Your task to perform on an android device: Go to notification settings Image 0: 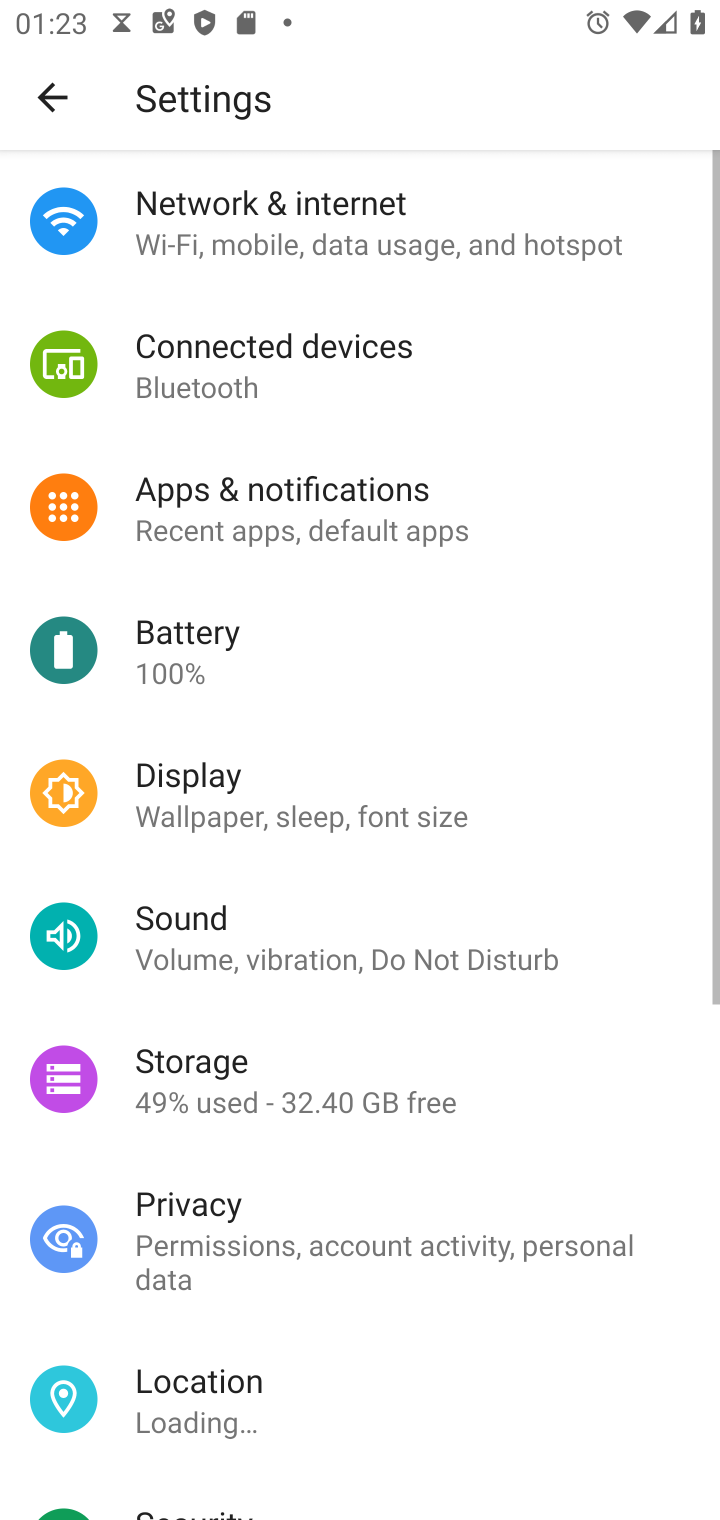
Step 0: click (634, 1053)
Your task to perform on an android device: Go to notification settings Image 1: 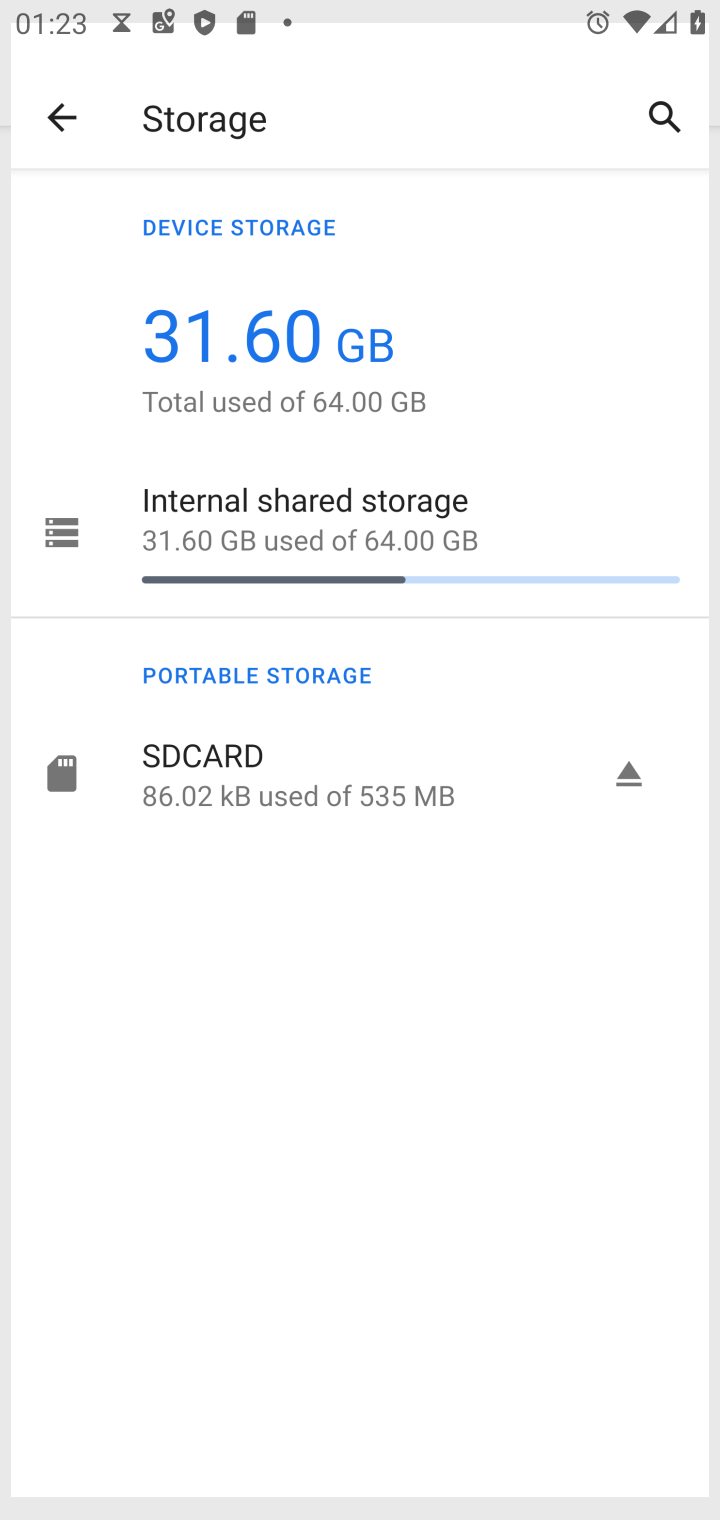
Step 1: press home button
Your task to perform on an android device: Go to notification settings Image 2: 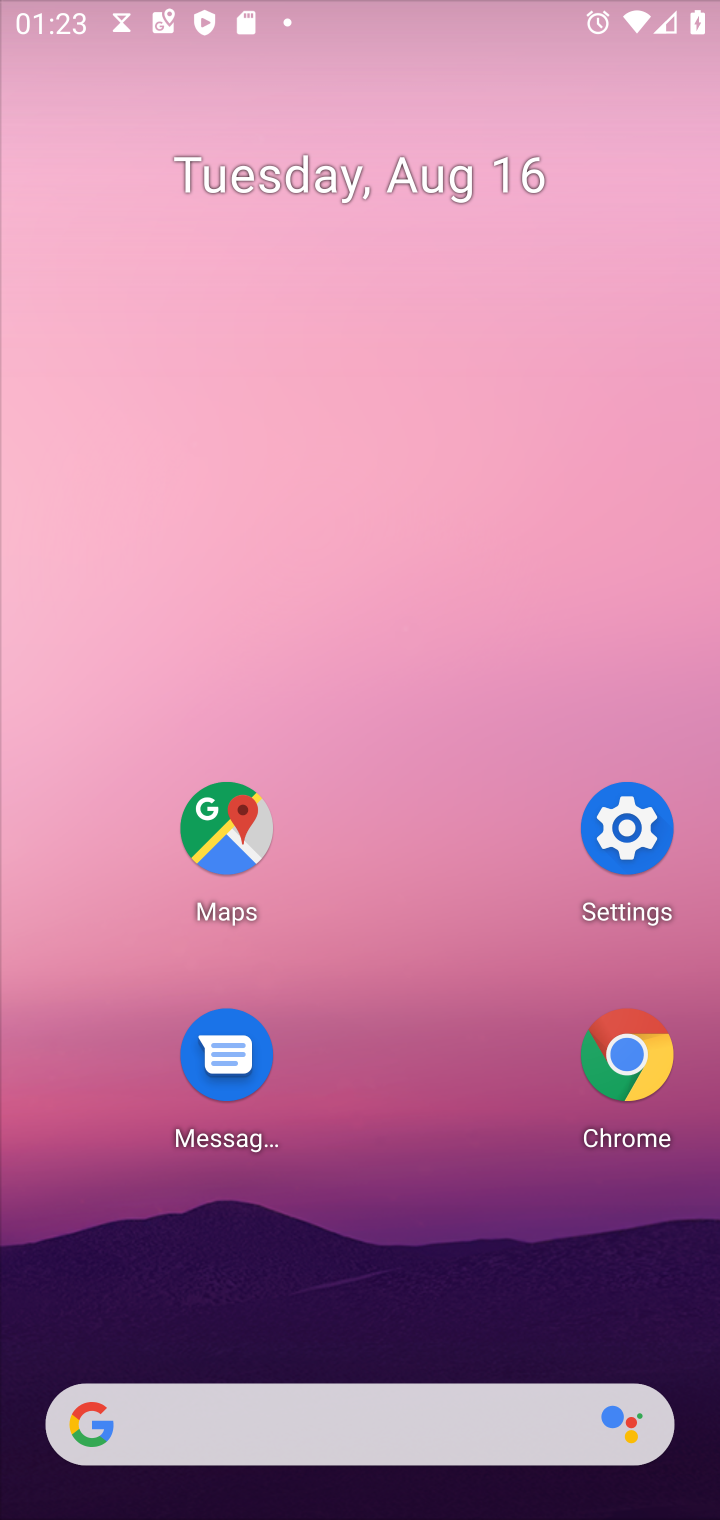
Step 2: press home button
Your task to perform on an android device: Go to notification settings Image 3: 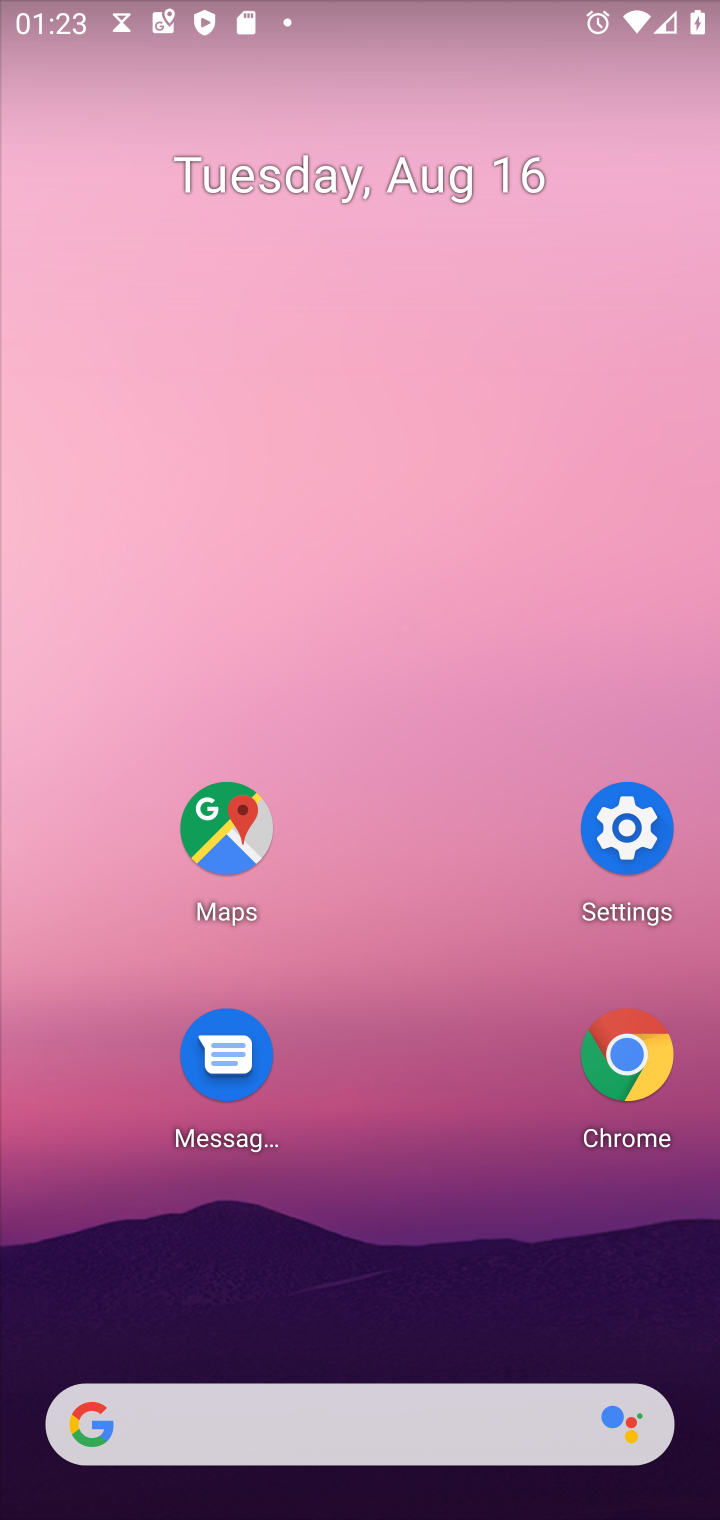
Step 3: click (635, 1062)
Your task to perform on an android device: Go to notification settings Image 4: 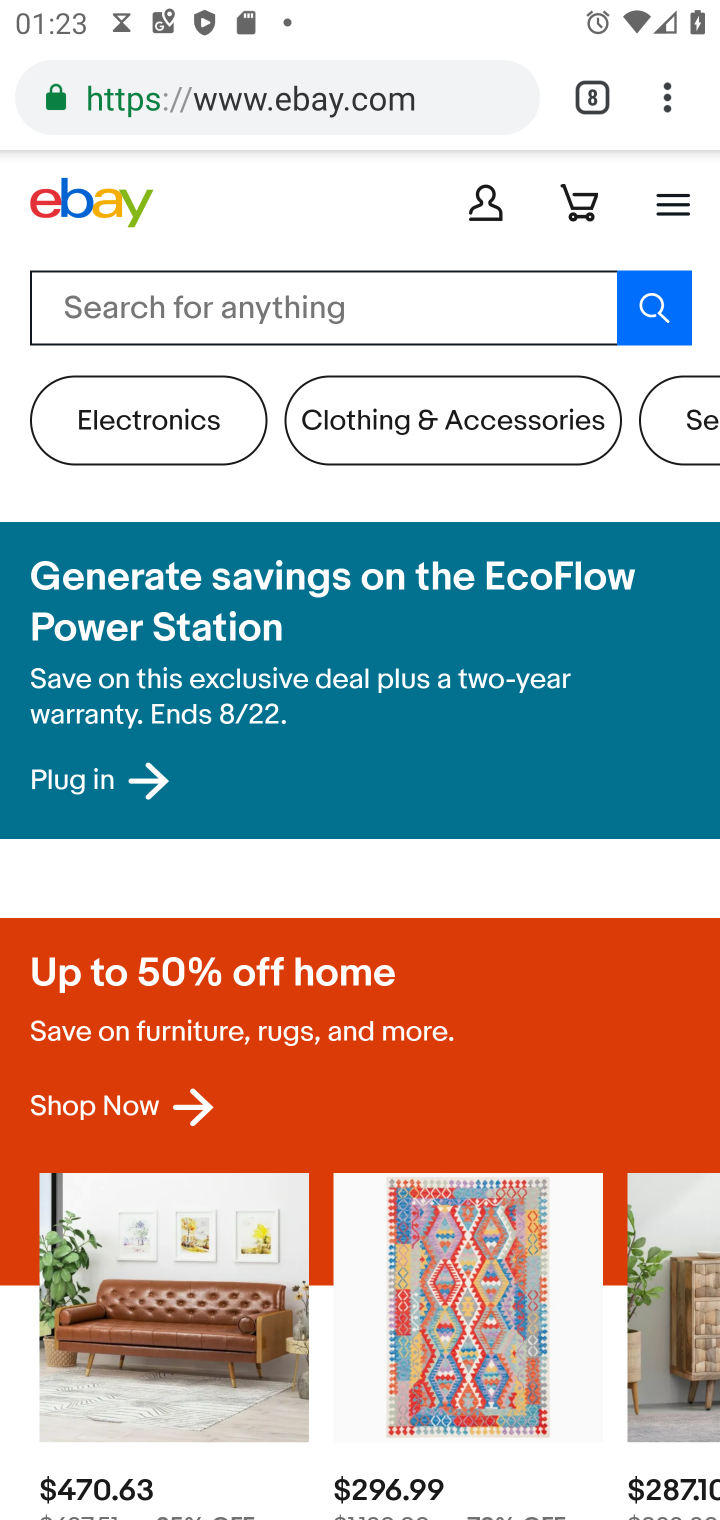
Step 4: press home button
Your task to perform on an android device: Go to notification settings Image 5: 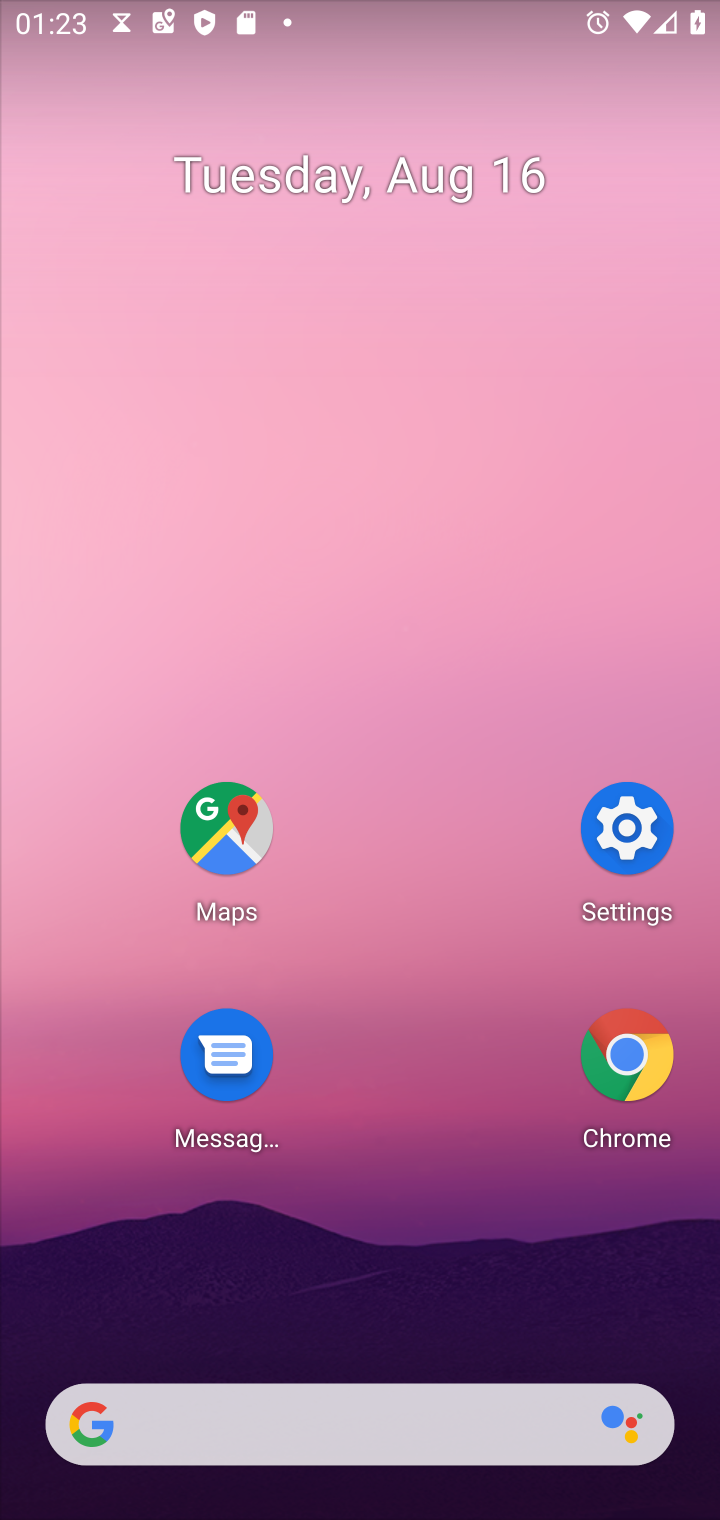
Step 5: click (646, 812)
Your task to perform on an android device: Go to notification settings Image 6: 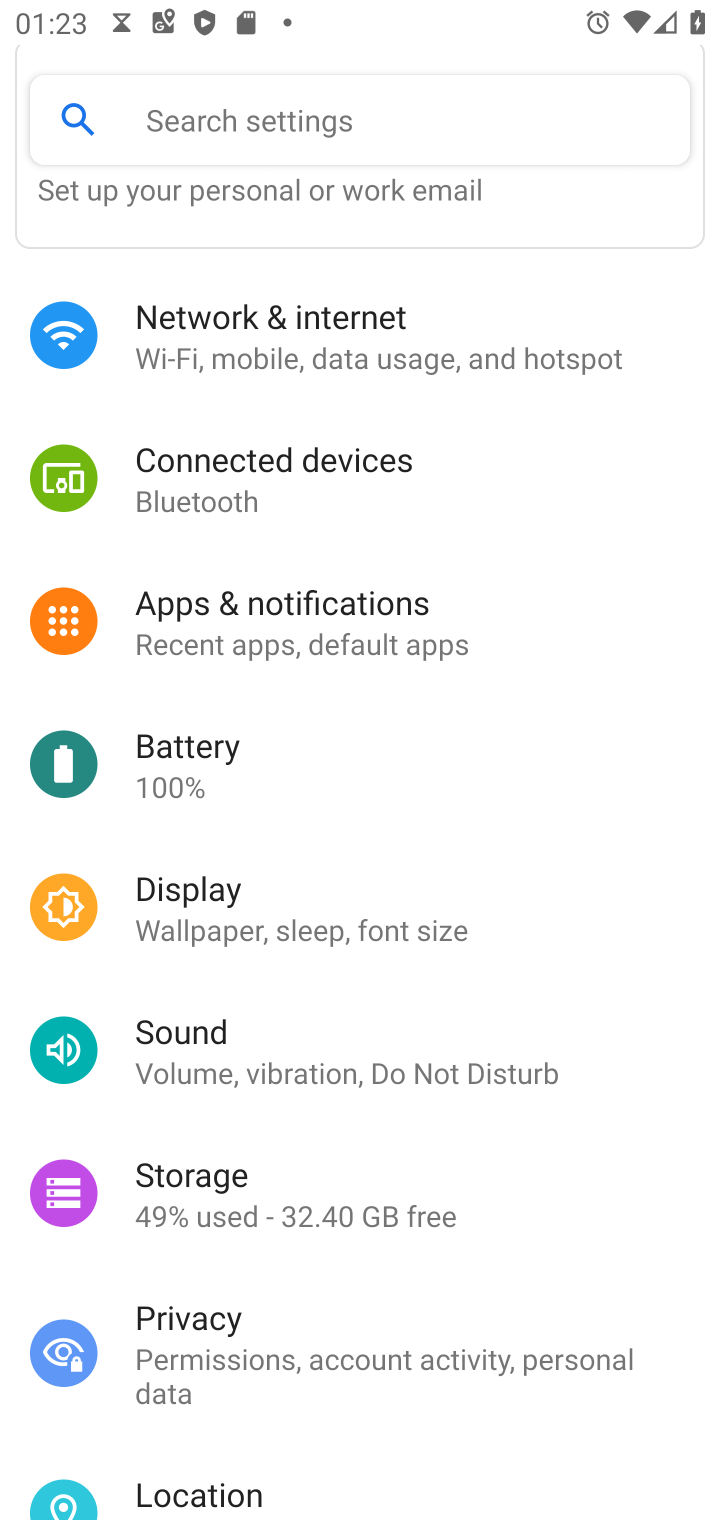
Step 6: click (323, 604)
Your task to perform on an android device: Go to notification settings Image 7: 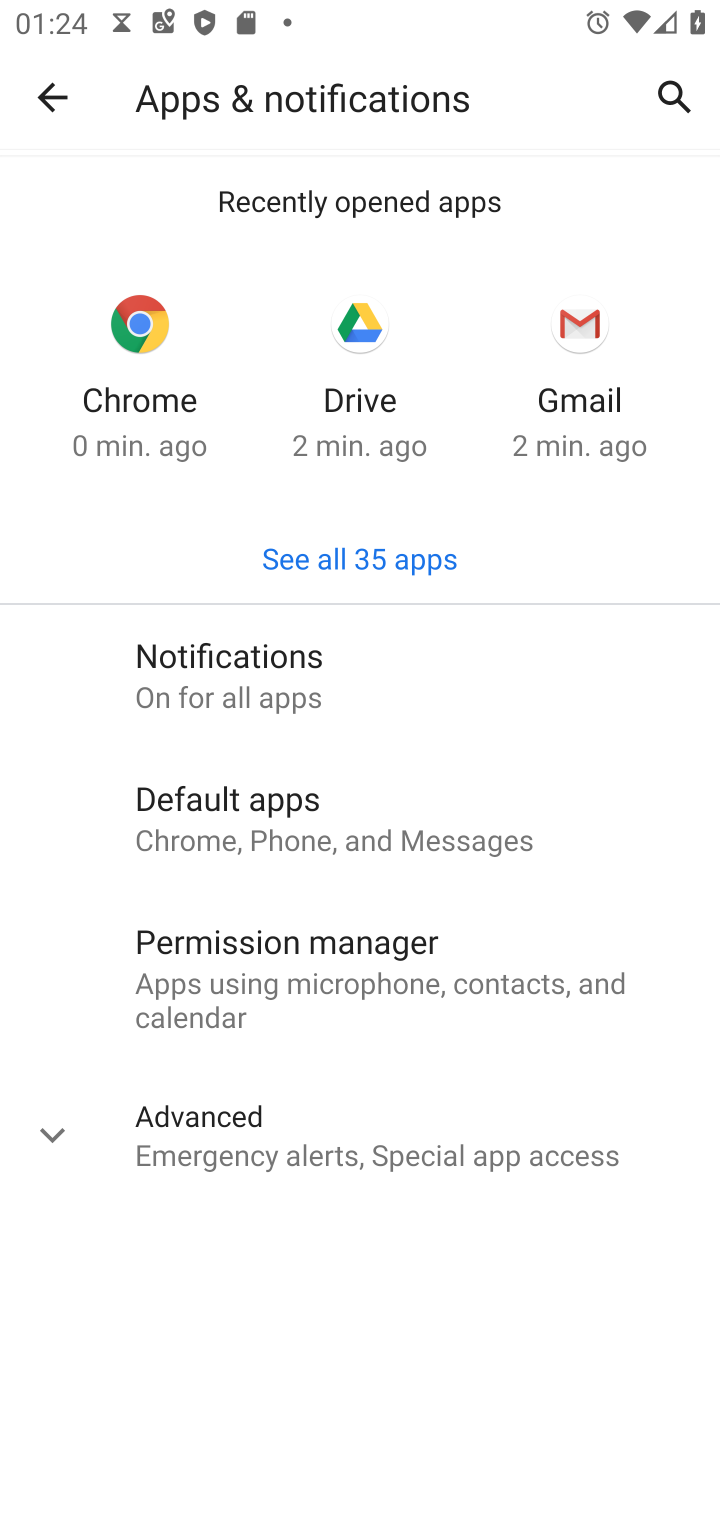
Step 7: click (318, 675)
Your task to perform on an android device: Go to notification settings Image 8: 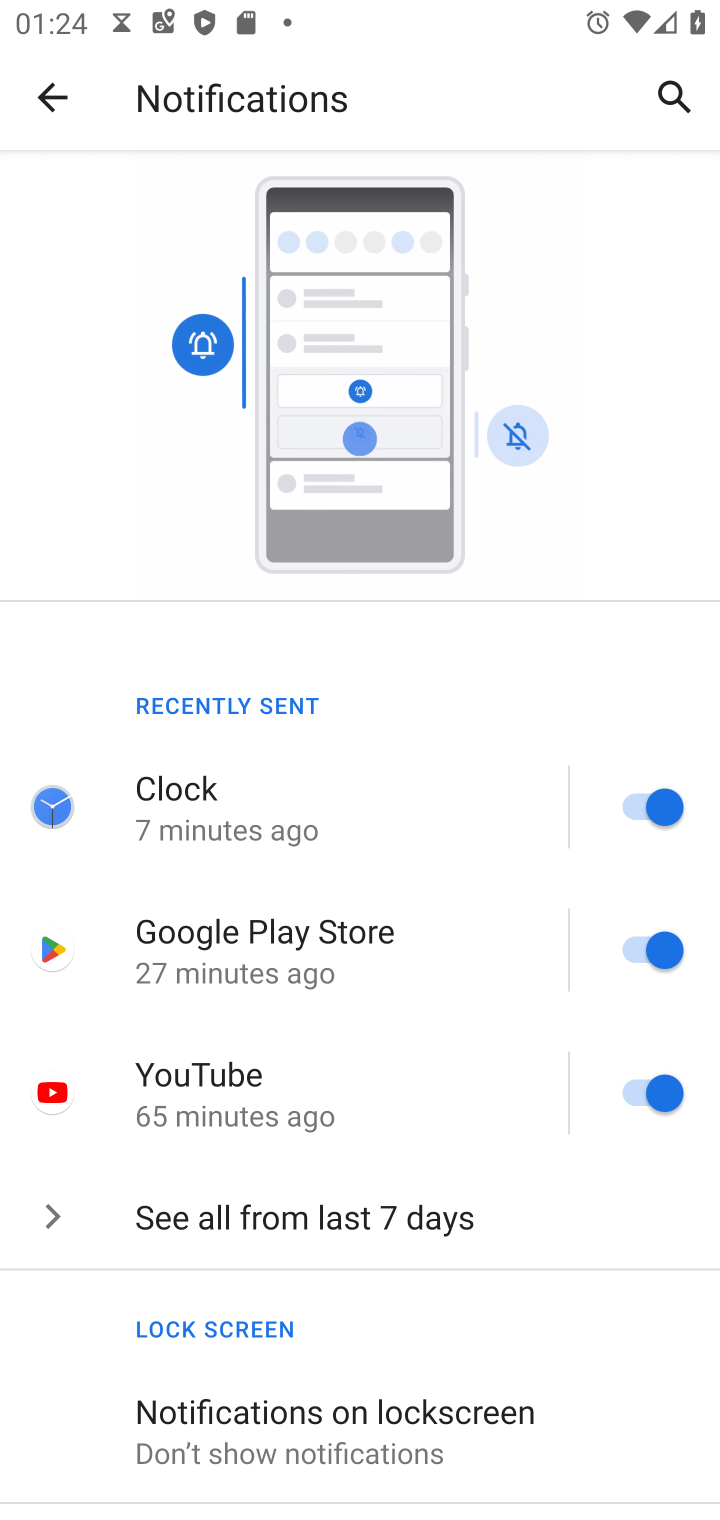
Step 8: task complete